Your task to perform on an android device: Go to wifi settings Image 0: 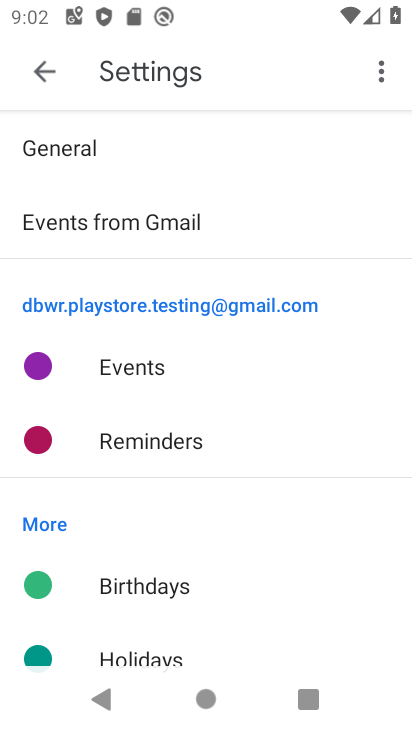
Step 0: press home button
Your task to perform on an android device: Go to wifi settings Image 1: 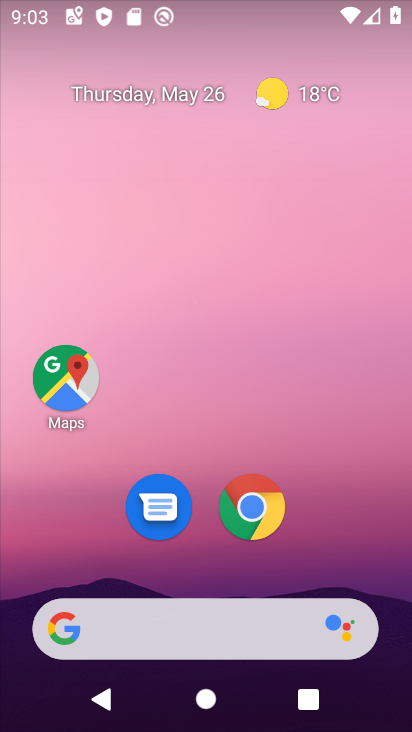
Step 1: drag from (262, 666) to (216, 189)
Your task to perform on an android device: Go to wifi settings Image 2: 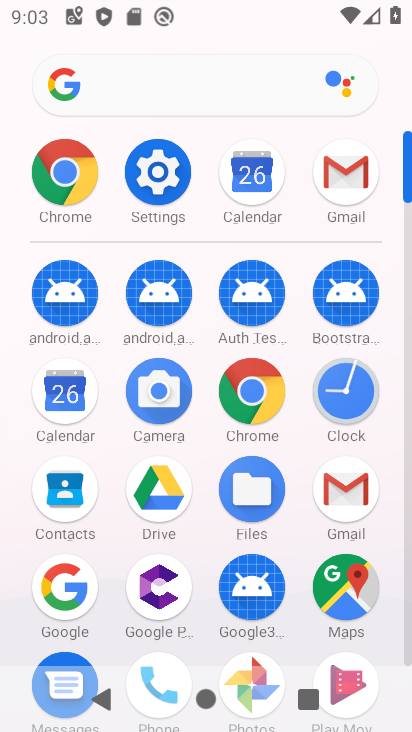
Step 2: click (170, 182)
Your task to perform on an android device: Go to wifi settings Image 3: 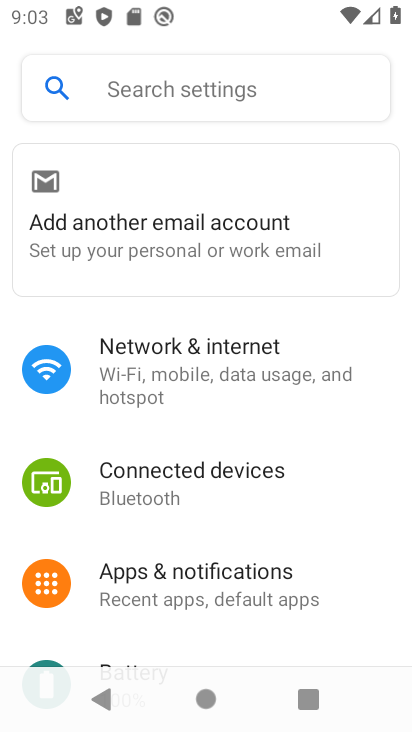
Step 3: click (178, 360)
Your task to perform on an android device: Go to wifi settings Image 4: 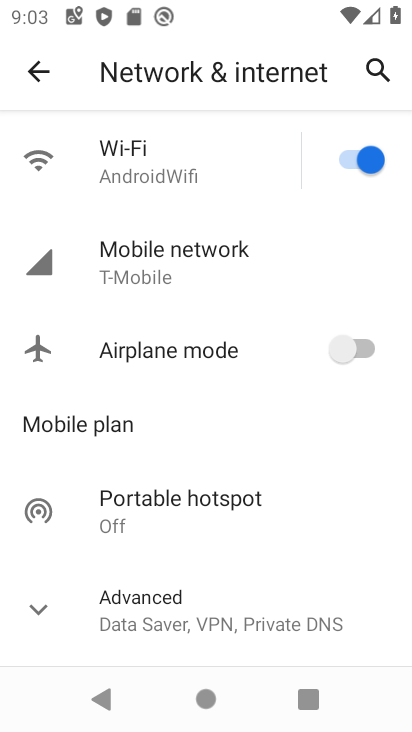
Step 4: click (175, 177)
Your task to perform on an android device: Go to wifi settings Image 5: 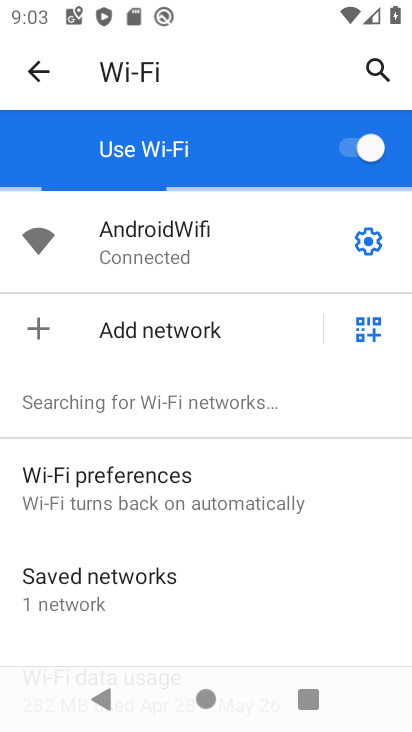
Step 5: task complete